Your task to perform on an android device: read, delete, or share a saved page in the chrome app Image 0: 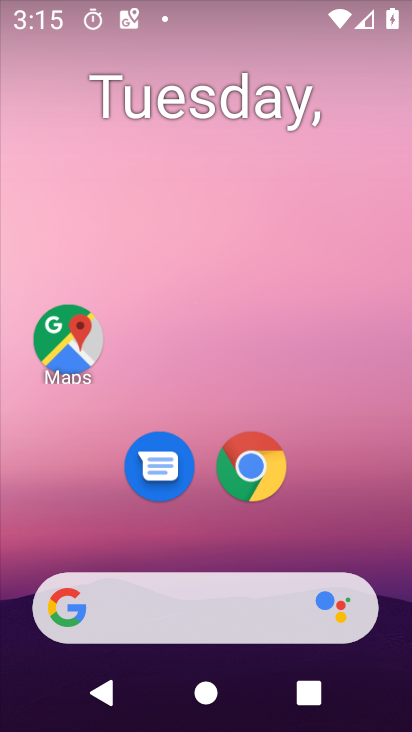
Step 0: drag from (372, 546) to (389, 138)
Your task to perform on an android device: read, delete, or share a saved page in the chrome app Image 1: 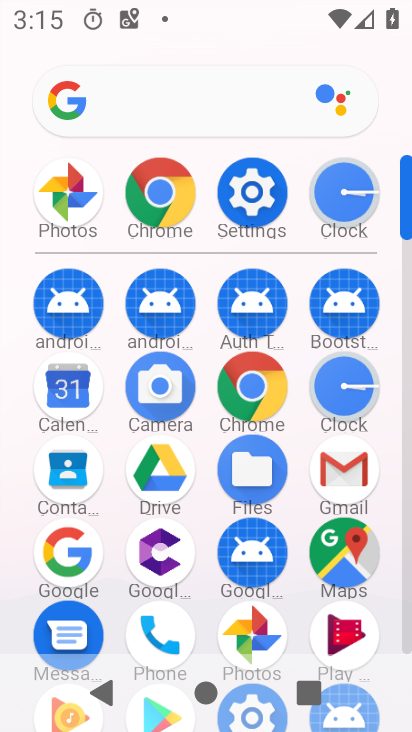
Step 1: click (261, 410)
Your task to perform on an android device: read, delete, or share a saved page in the chrome app Image 2: 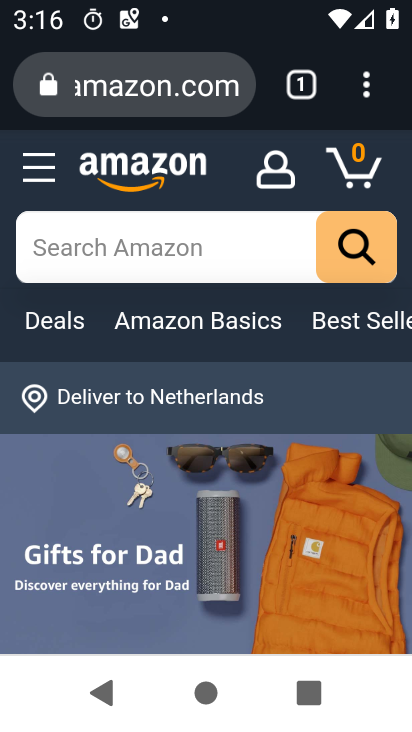
Step 2: click (367, 90)
Your task to perform on an android device: read, delete, or share a saved page in the chrome app Image 3: 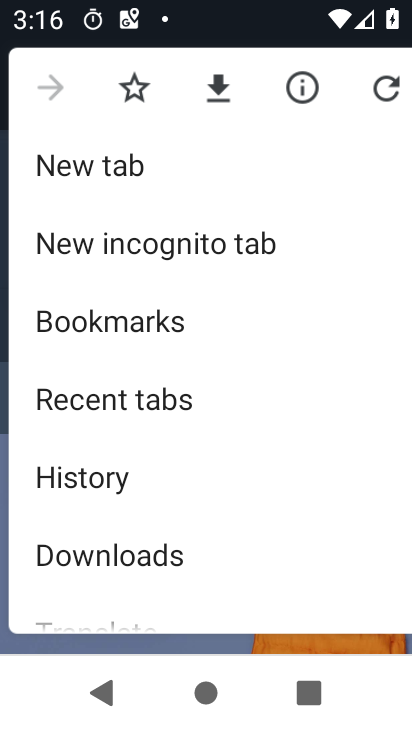
Step 3: drag from (300, 350) to (325, 241)
Your task to perform on an android device: read, delete, or share a saved page in the chrome app Image 4: 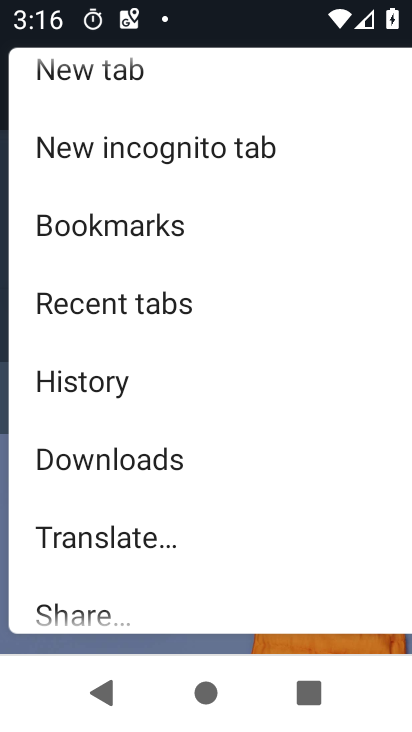
Step 4: drag from (331, 403) to (339, 319)
Your task to perform on an android device: read, delete, or share a saved page in the chrome app Image 5: 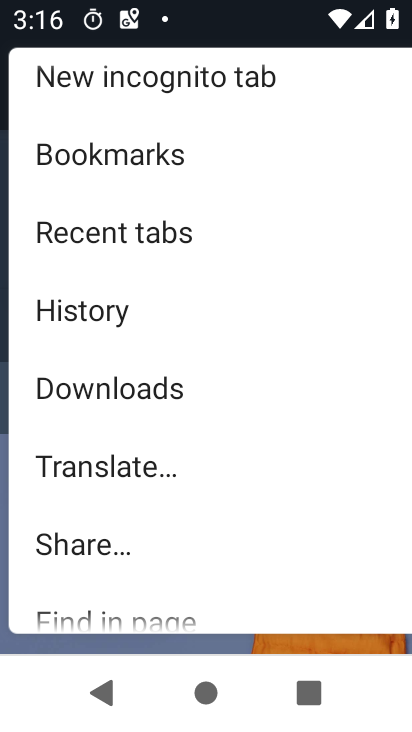
Step 5: drag from (315, 439) to (322, 319)
Your task to perform on an android device: read, delete, or share a saved page in the chrome app Image 6: 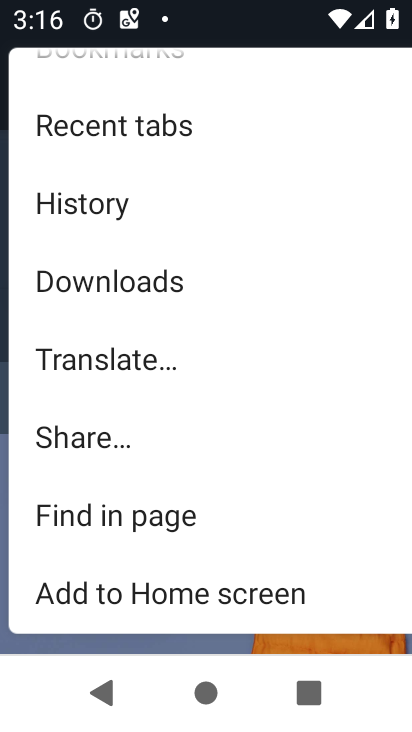
Step 6: drag from (293, 454) to (293, 264)
Your task to perform on an android device: read, delete, or share a saved page in the chrome app Image 7: 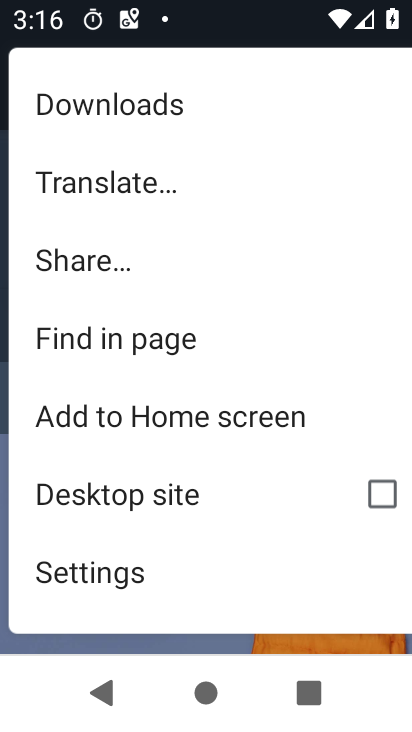
Step 7: drag from (247, 512) to (281, 356)
Your task to perform on an android device: read, delete, or share a saved page in the chrome app Image 8: 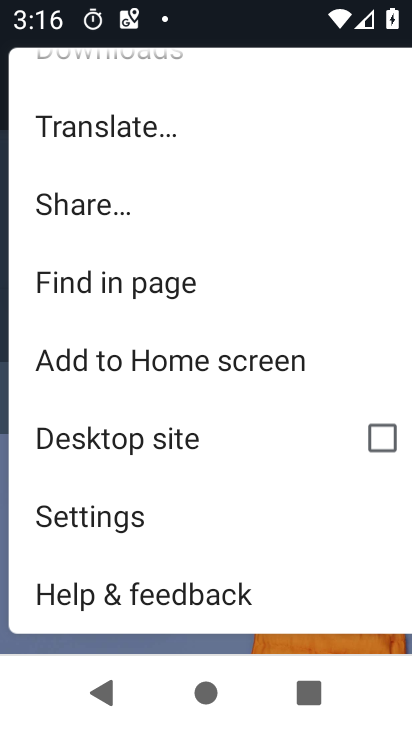
Step 8: drag from (255, 231) to (258, 385)
Your task to perform on an android device: read, delete, or share a saved page in the chrome app Image 9: 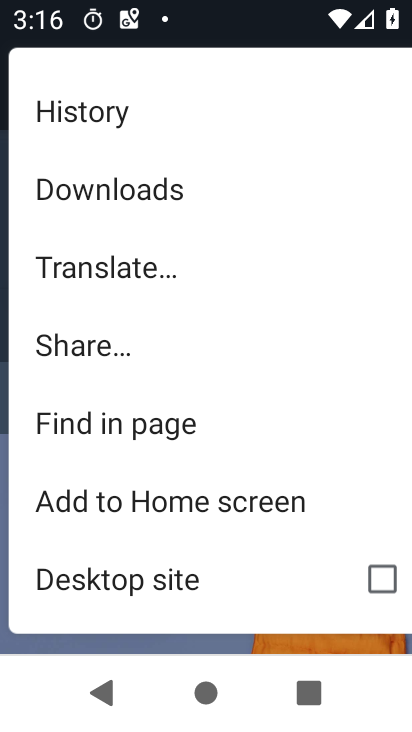
Step 9: drag from (269, 181) to (267, 334)
Your task to perform on an android device: read, delete, or share a saved page in the chrome app Image 10: 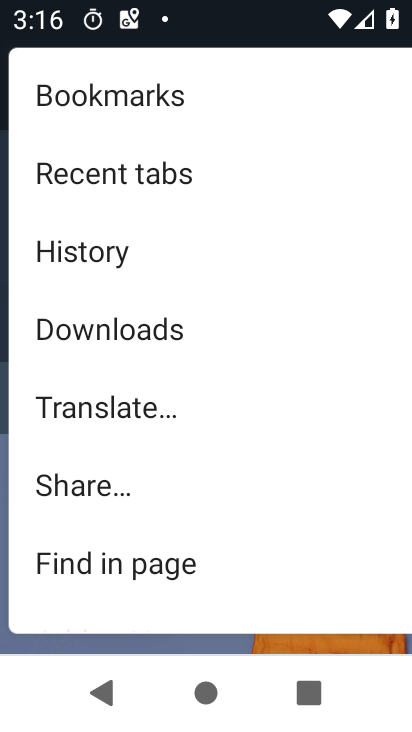
Step 10: click (241, 334)
Your task to perform on an android device: read, delete, or share a saved page in the chrome app Image 11: 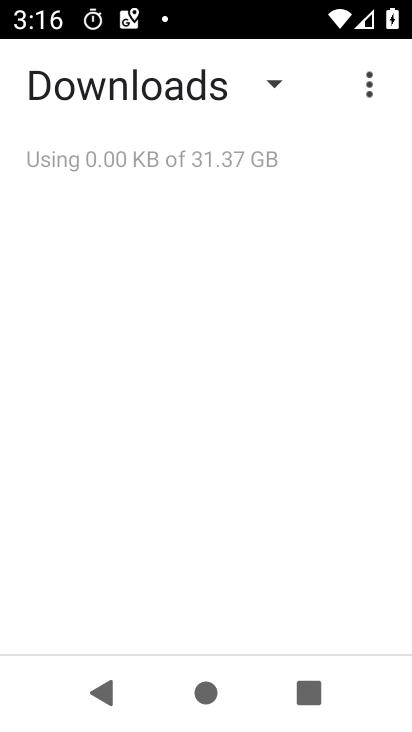
Step 11: click (275, 88)
Your task to perform on an android device: read, delete, or share a saved page in the chrome app Image 12: 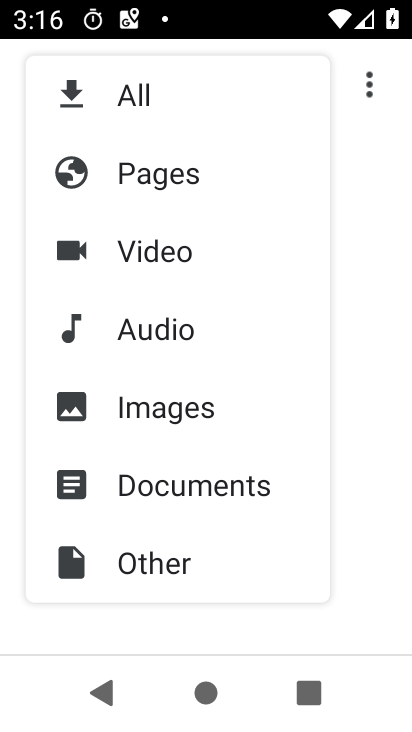
Step 12: click (191, 187)
Your task to perform on an android device: read, delete, or share a saved page in the chrome app Image 13: 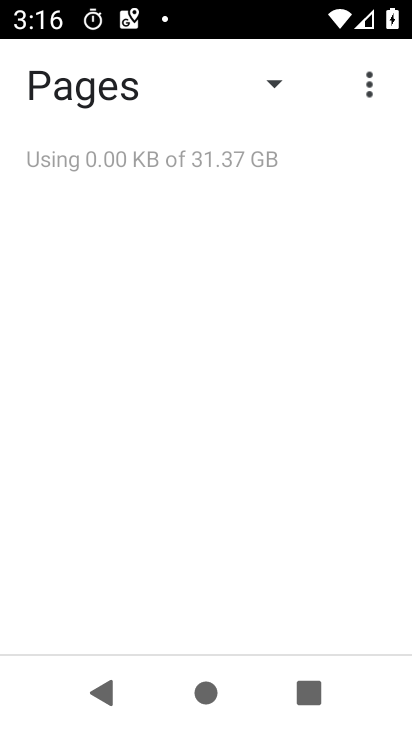
Step 13: task complete